Your task to perform on an android device: Go to Reddit.com Image 0: 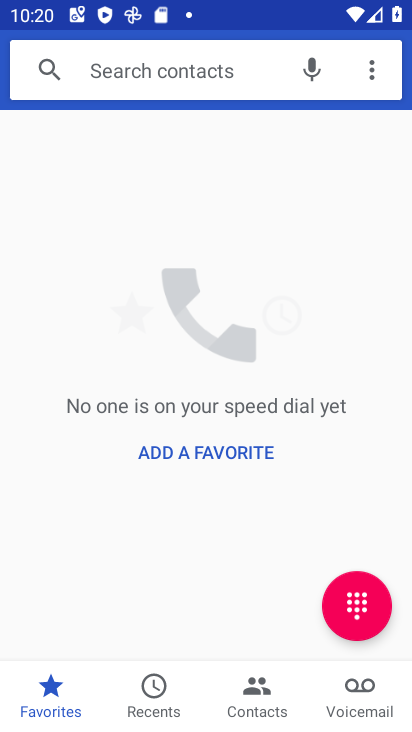
Step 0: press home button
Your task to perform on an android device: Go to Reddit.com Image 1: 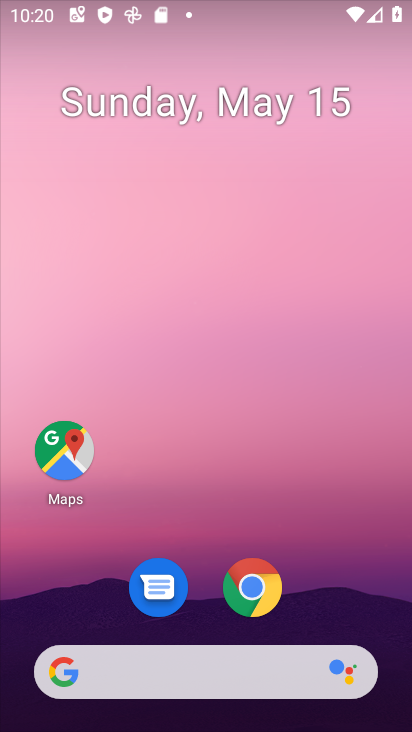
Step 1: drag from (389, 645) to (294, 105)
Your task to perform on an android device: Go to Reddit.com Image 2: 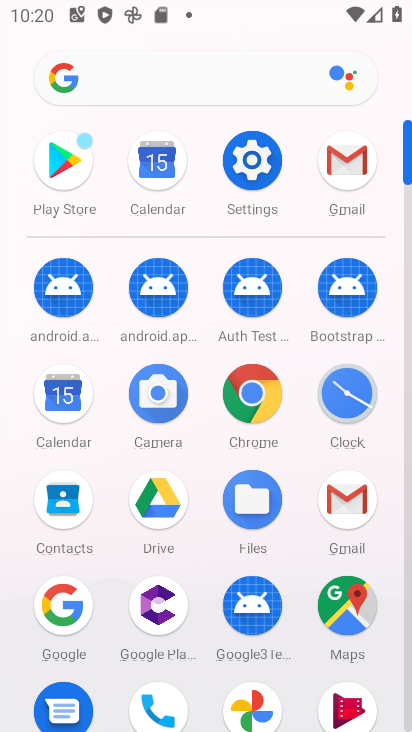
Step 2: click (267, 393)
Your task to perform on an android device: Go to Reddit.com Image 3: 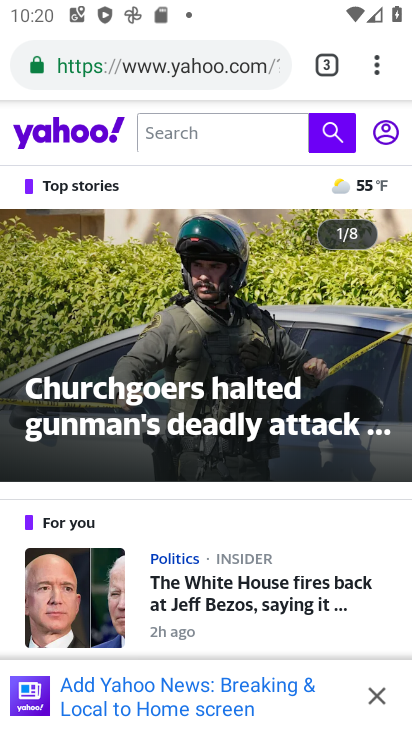
Step 3: press back button
Your task to perform on an android device: Go to Reddit.com Image 4: 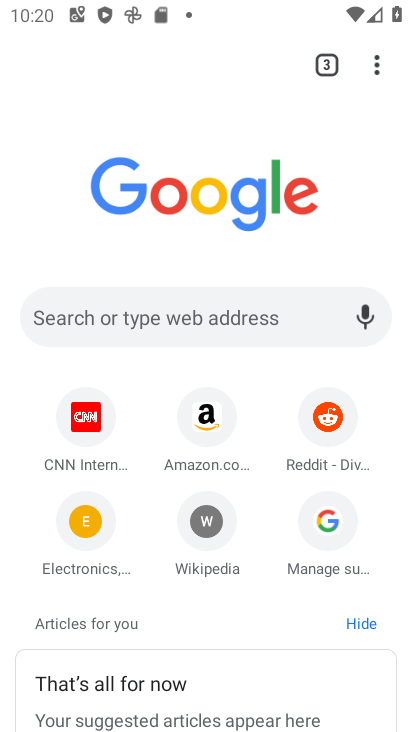
Step 4: click (329, 423)
Your task to perform on an android device: Go to Reddit.com Image 5: 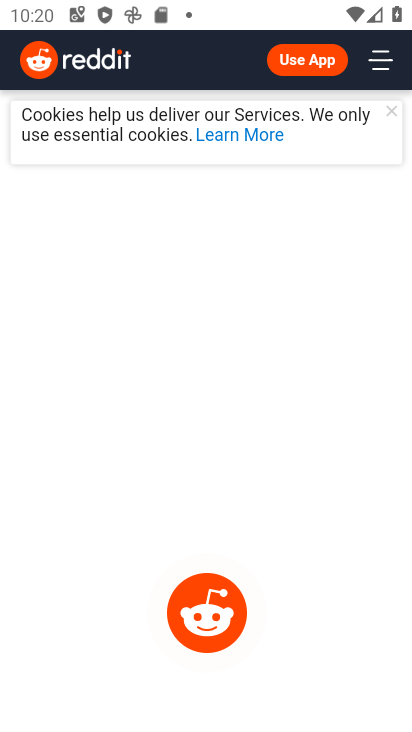
Step 5: task complete